Your task to perform on an android device: toggle notification dots Image 0: 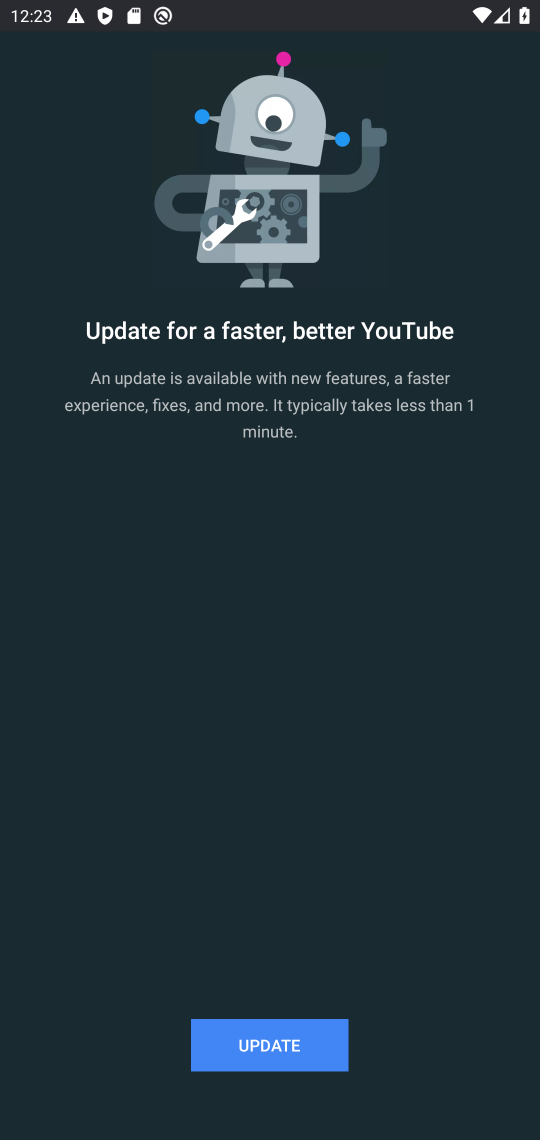
Step 0: press home button
Your task to perform on an android device: toggle notification dots Image 1: 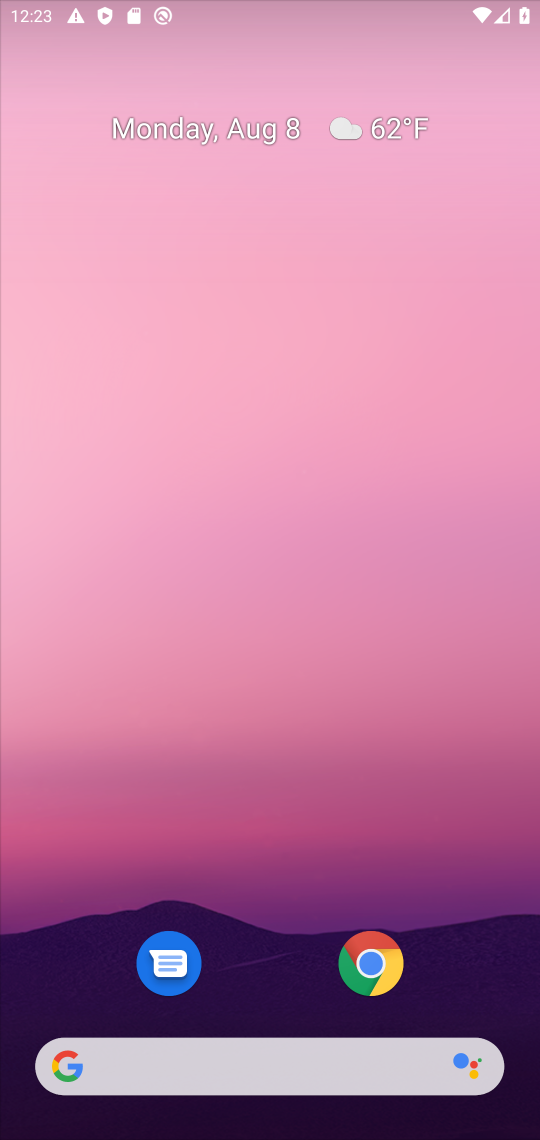
Step 1: drag from (491, 974) to (293, 22)
Your task to perform on an android device: toggle notification dots Image 2: 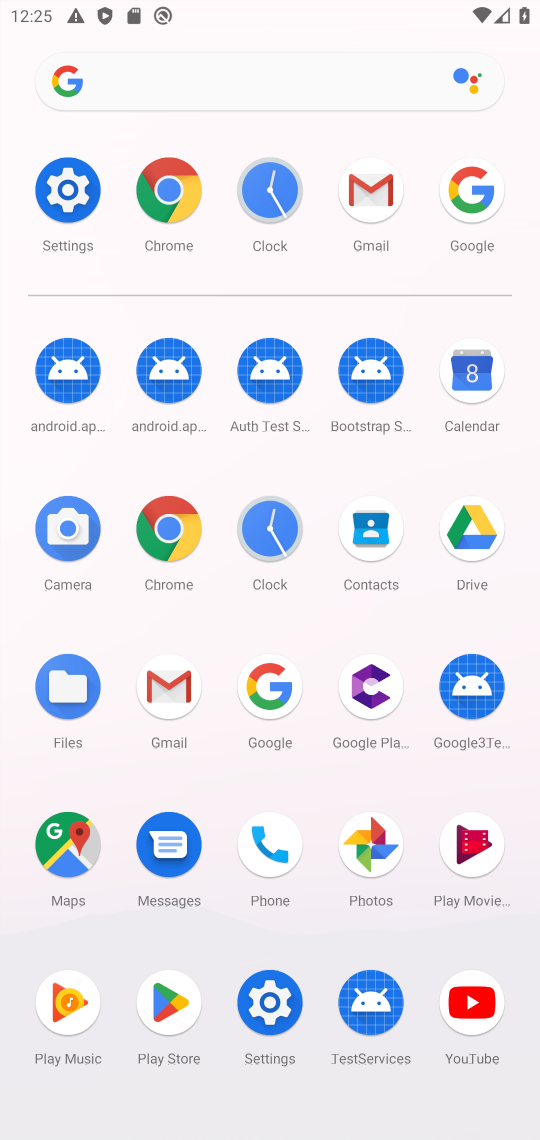
Step 2: click (245, 1018)
Your task to perform on an android device: toggle notification dots Image 3: 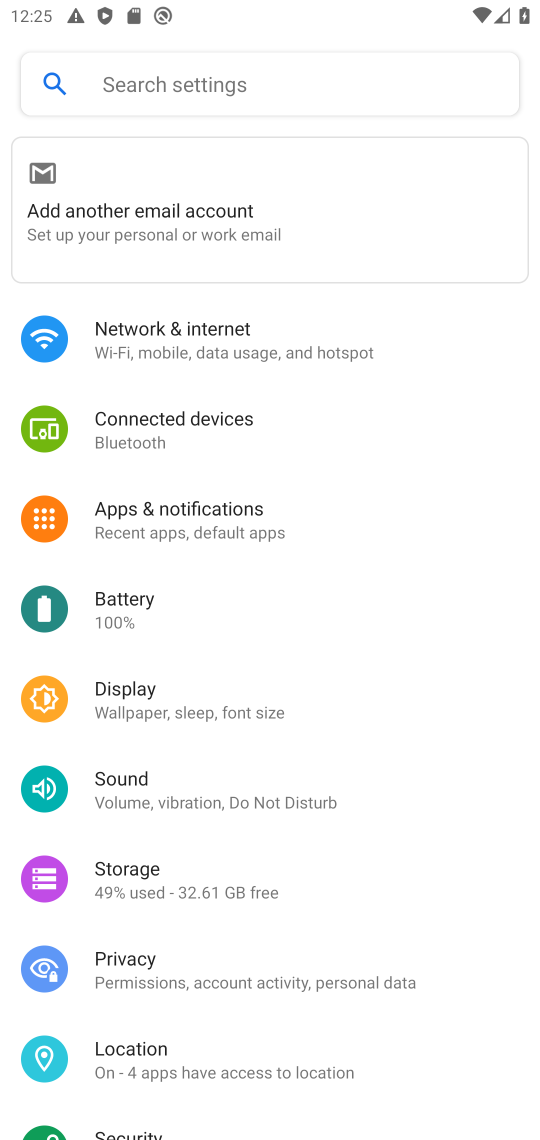
Step 3: click (163, 508)
Your task to perform on an android device: toggle notification dots Image 4: 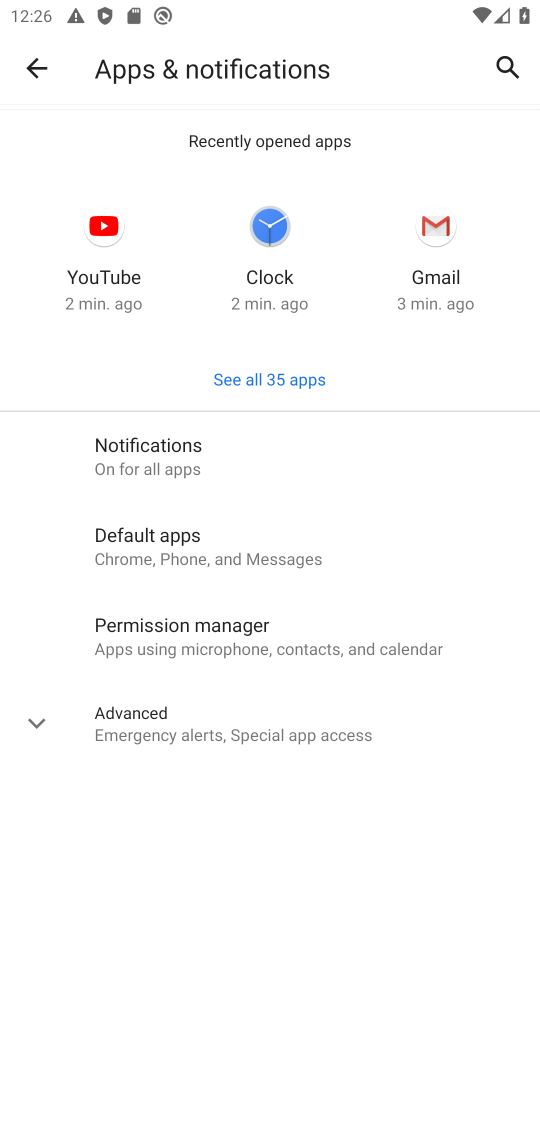
Step 4: click (176, 464)
Your task to perform on an android device: toggle notification dots Image 5: 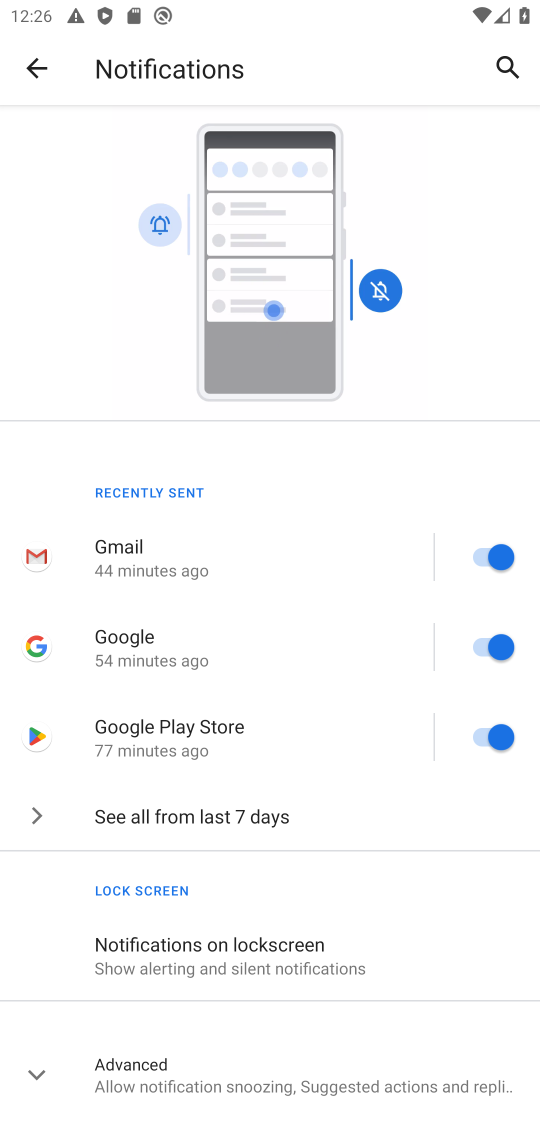
Step 5: drag from (178, 1021) to (145, 116)
Your task to perform on an android device: toggle notification dots Image 6: 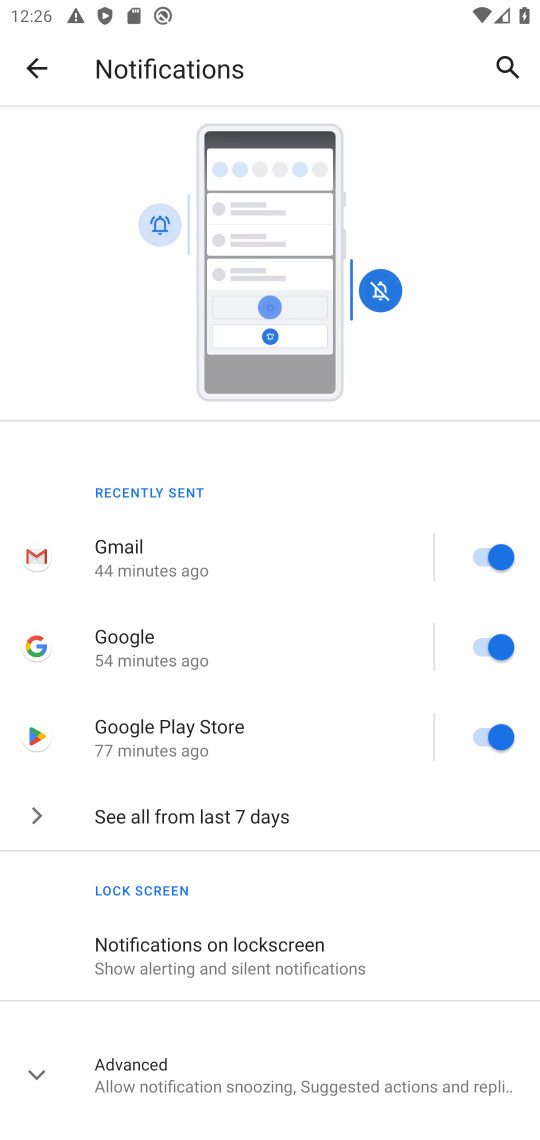
Step 6: click (179, 1055)
Your task to perform on an android device: toggle notification dots Image 7: 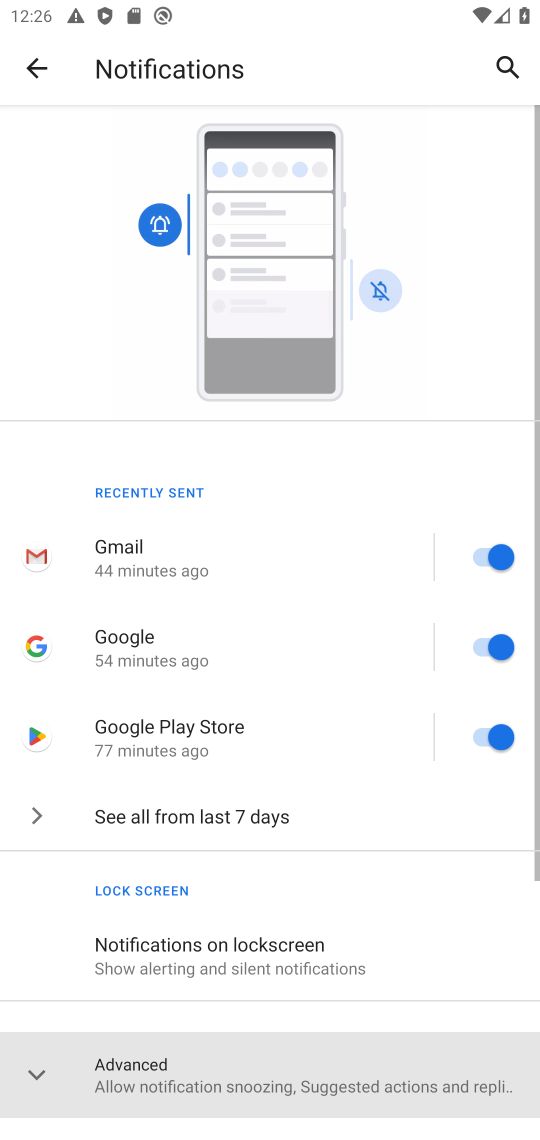
Step 7: drag from (211, 1076) to (198, 274)
Your task to perform on an android device: toggle notification dots Image 8: 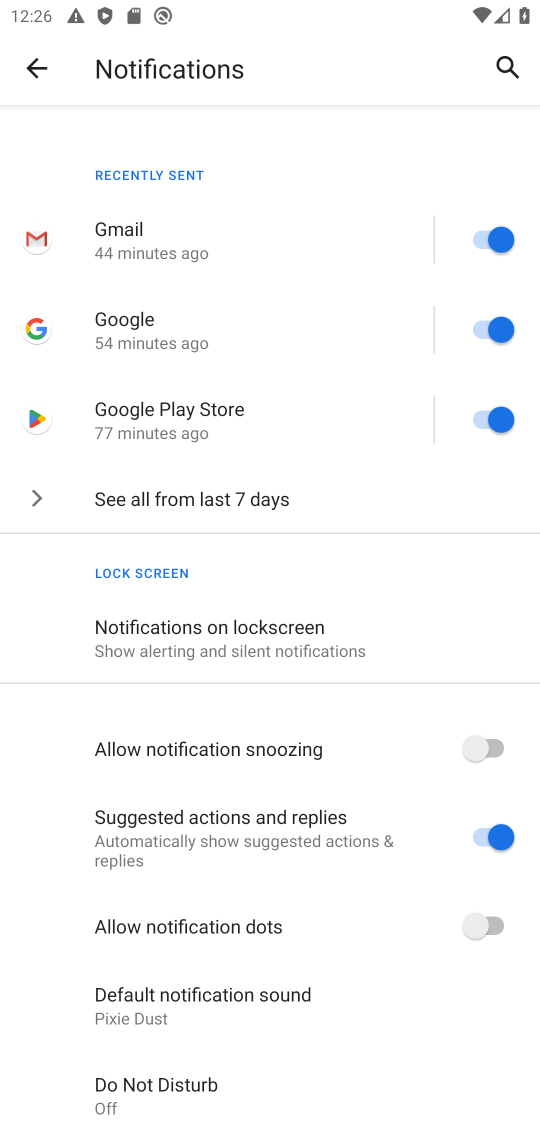
Step 8: click (411, 924)
Your task to perform on an android device: toggle notification dots Image 9: 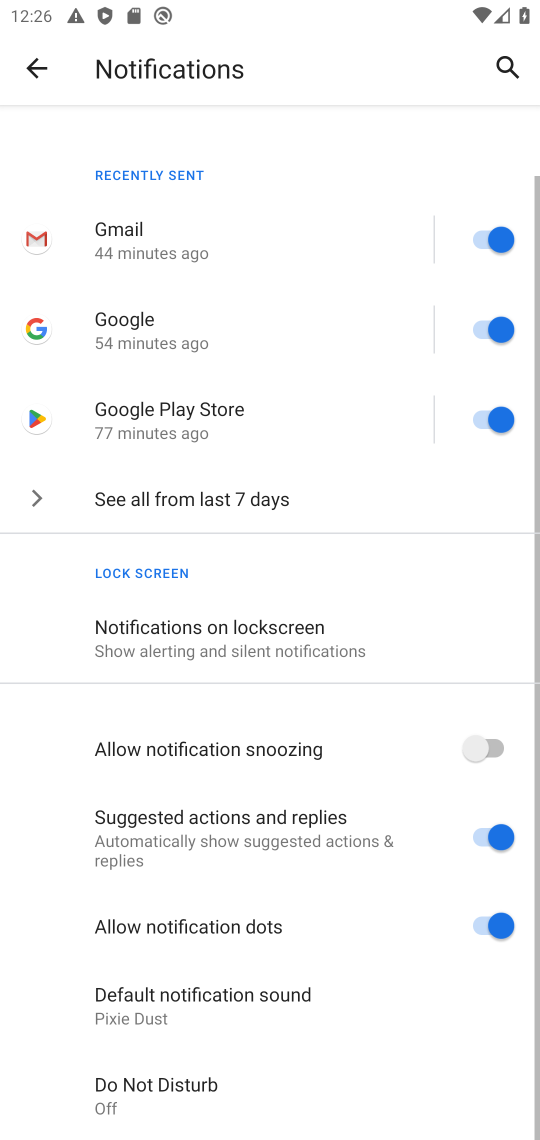
Step 9: task complete